Your task to perform on an android device: What's the time in New York? Image 0: 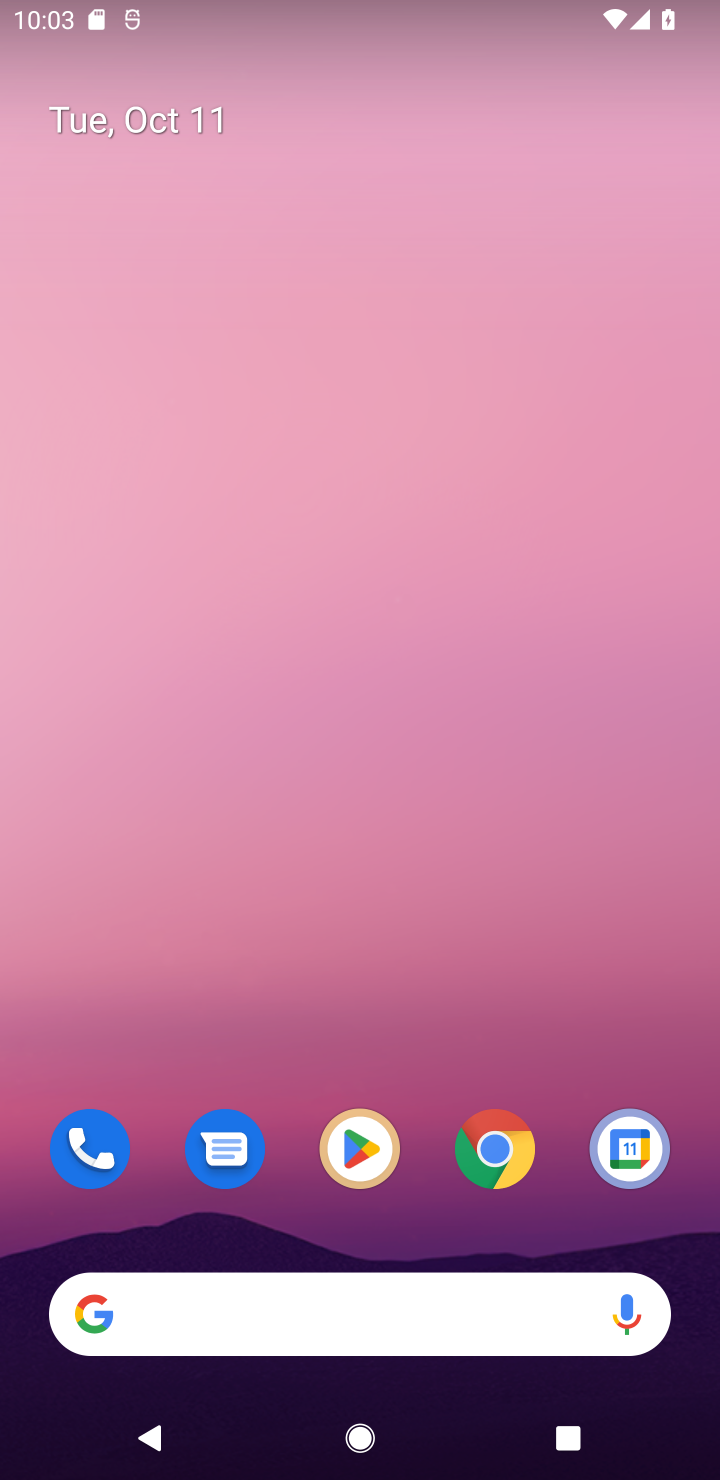
Step 0: click (335, 1330)
Your task to perform on an android device: What's the time in New York? Image 1: 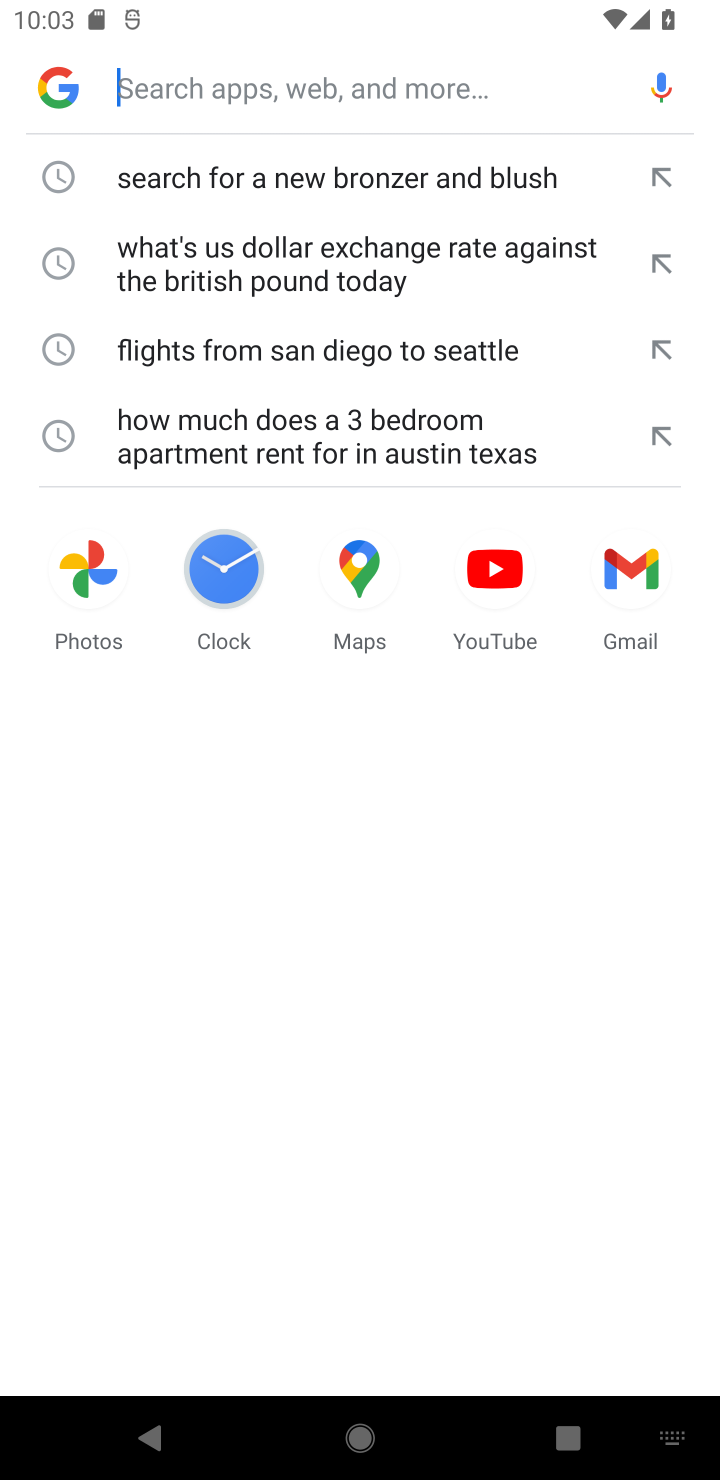
Step 1: type "What's the time in New York?"
Your task to perform on an android device: What's the time in New York? Image 2: 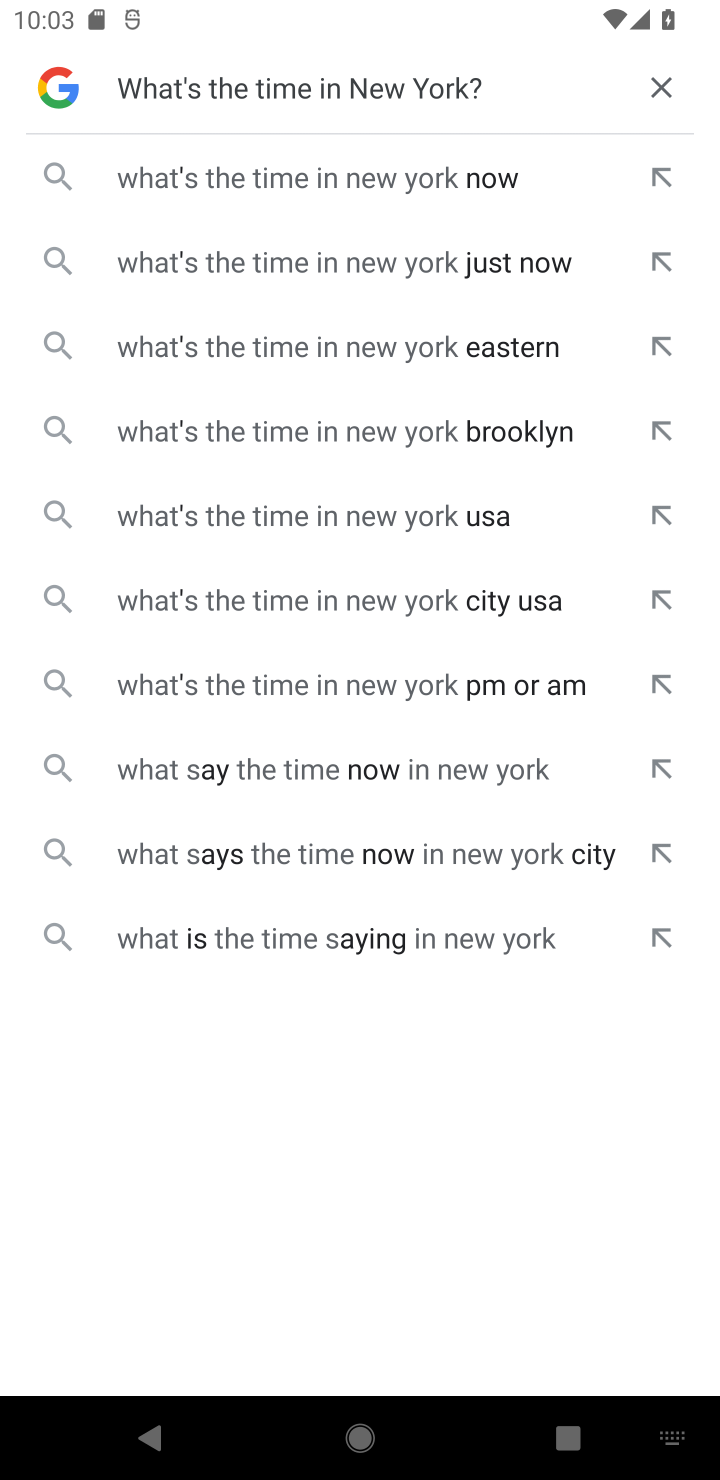
Step 2: click (492, 189)
Your task to perform on an android device: What's the time in New York? Image 3: 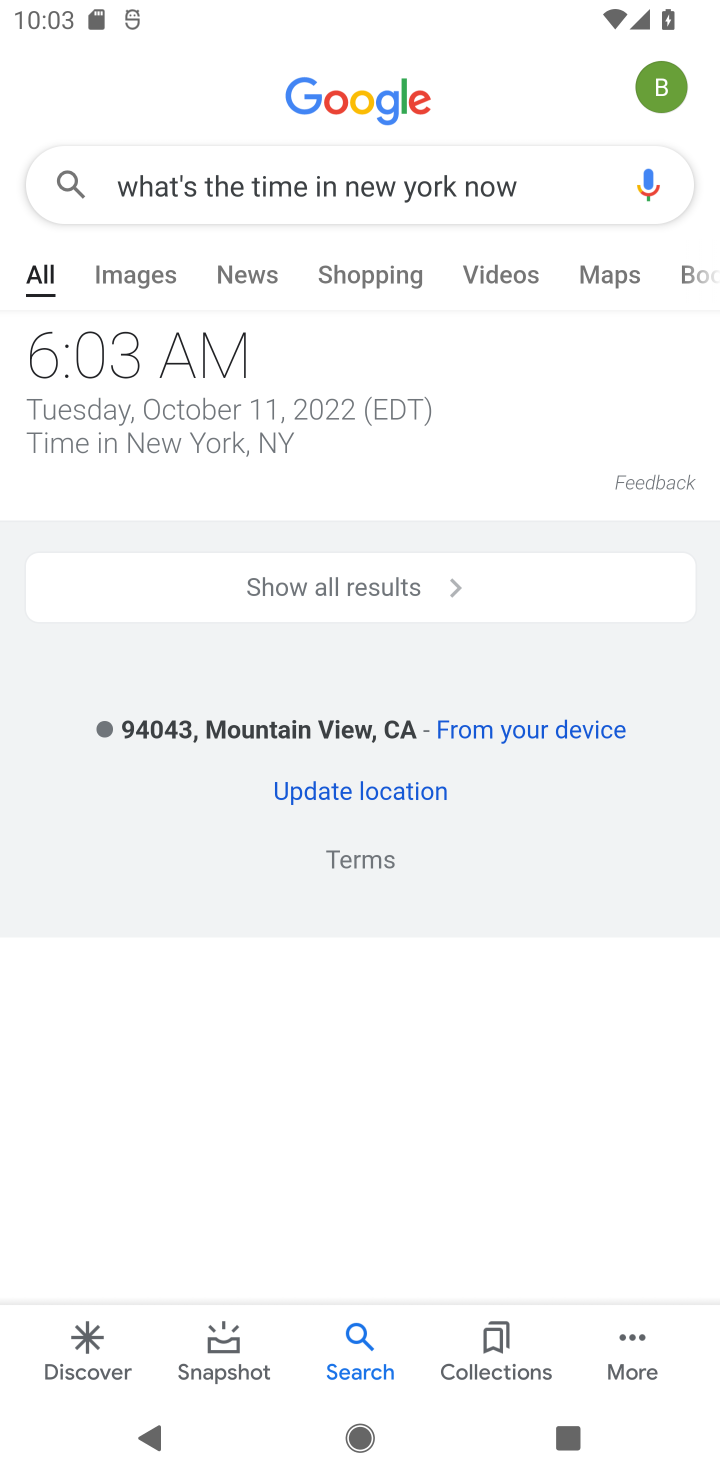
Step 3: task complete